Your task to perform on an android device: turn on the 24-hour format for clock Image 0: 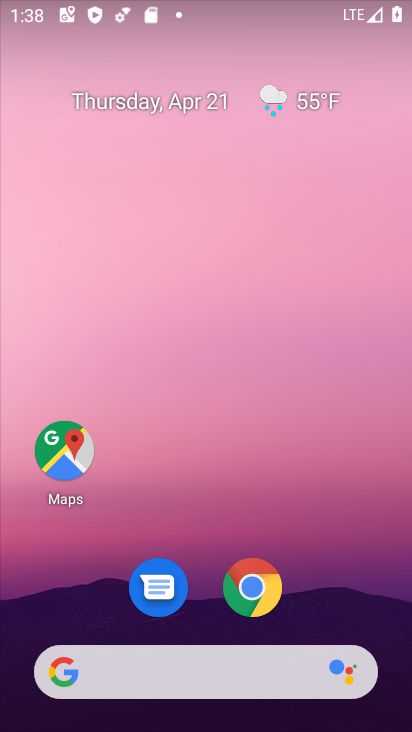
Step 0: drag from (343, 620) to (274, 182)
Your task to perform on an android device: turn on the 24-hour format for clock Image 1: 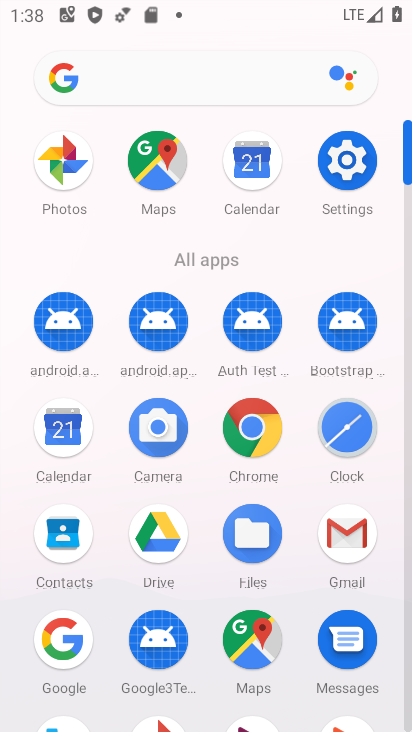
Step 1: click (342, 434)
Your task to perform on an android device: turn on the 24-hour format for clock Image 2: 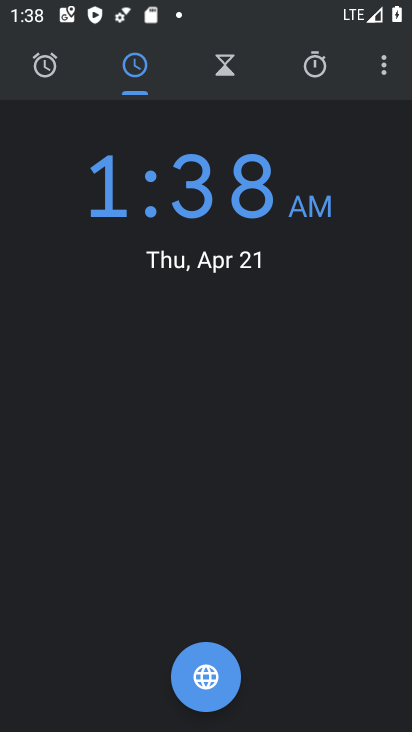
Step 2: click (385, 66)
Your task to perform on an android device: turn on the 24-hour format for clock Image 3: 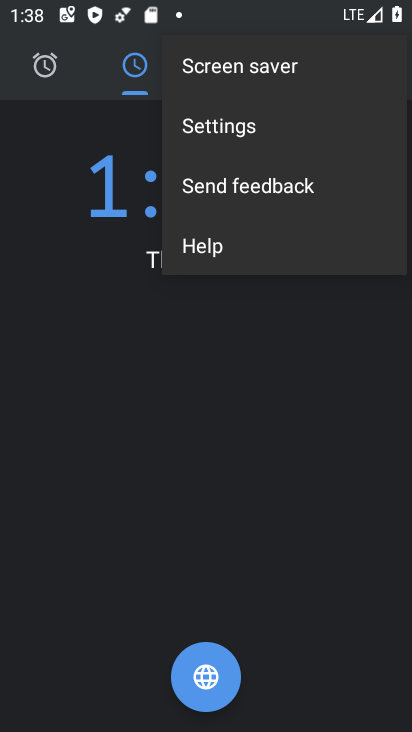
Step 3: click (219, 125)
Your task to perform on an android device: turn on the 24-hour format for clock Image 4: 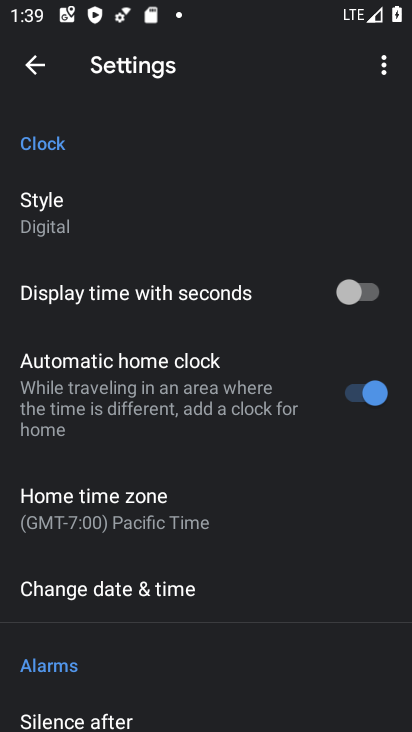
Step 4: click (115, 585)
Your task to perform on an android device: turn on the 24-hour format for clock Image 5: 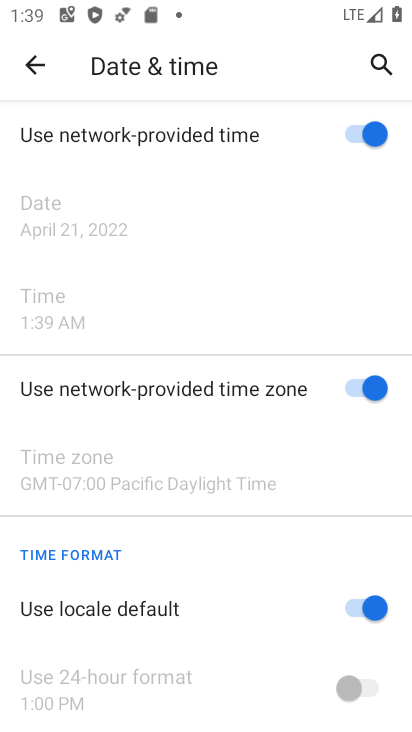
Step 5: drag from (208, 595) to (208, 149)
Your task to perform on an android device: turn on the 24-hour format for clock Image 6: 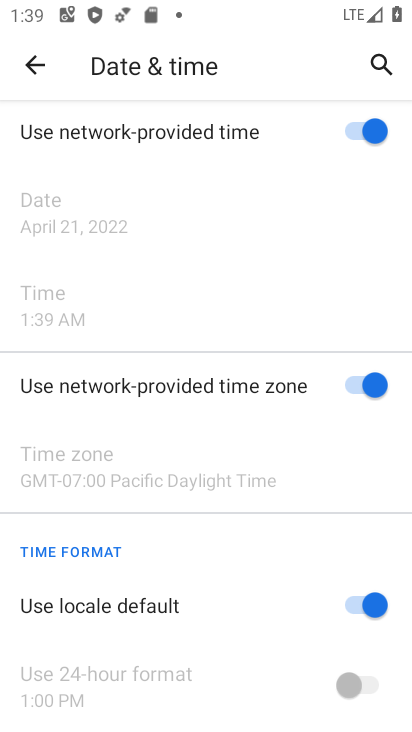
Step 6: click (350, 600)
Your task to perform on an android device: turn on the 24-hour format for clock Image 7: 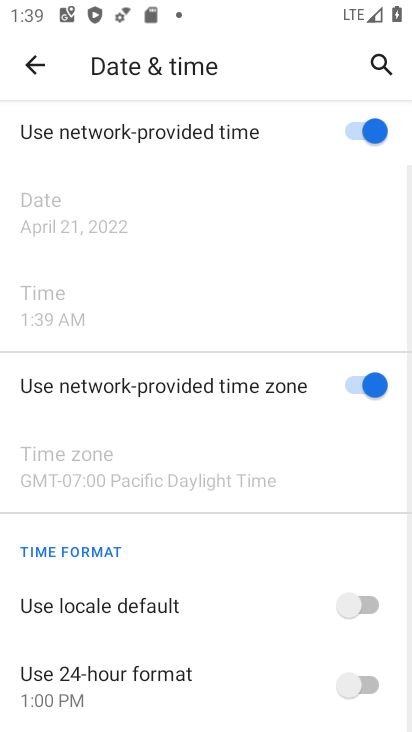
Step 7: click (370, 688)
Your task to perform on an android device: turn on the 24-hour format for clock Image 8: 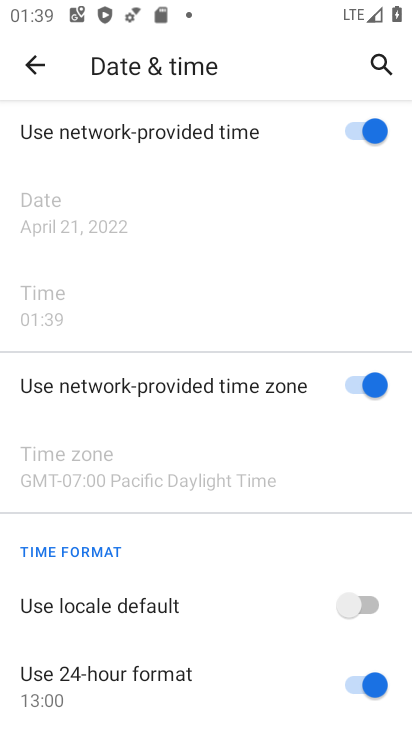
Step 8: task complete